Your task to perform on an android device: Go to settings Image 0: 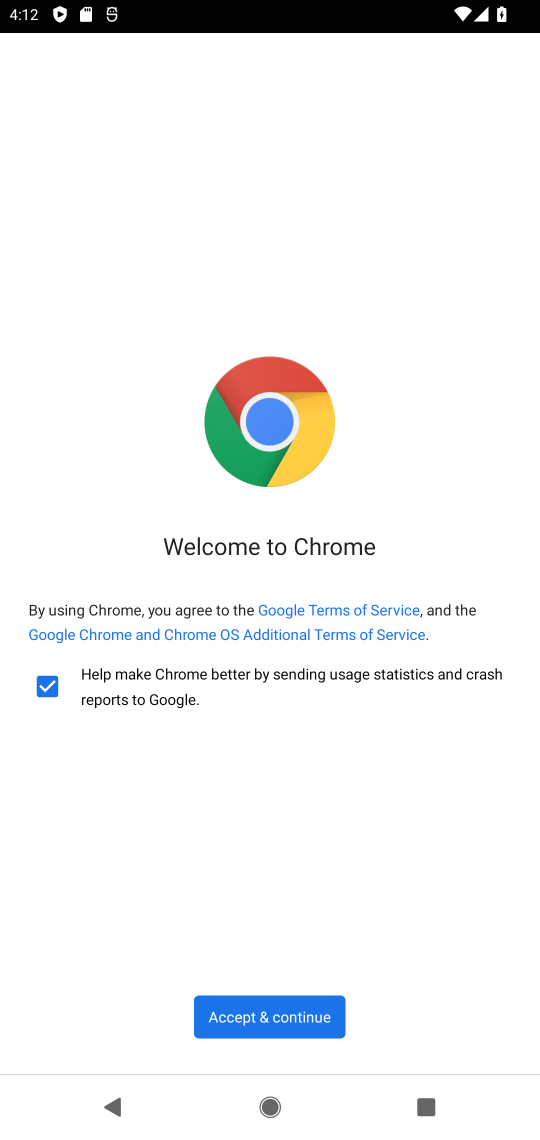
Step 0: press home button
Your task to perform on an android device: Go to settings Image 1: 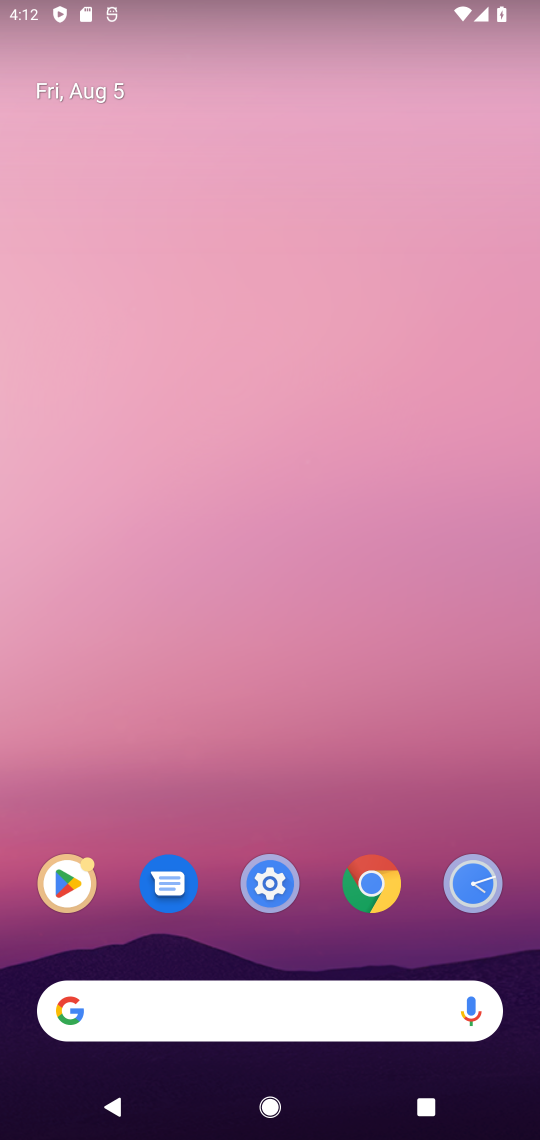
Step 1: click (266, 875)
Your task to perform on an android device: Go to settings Image 2: 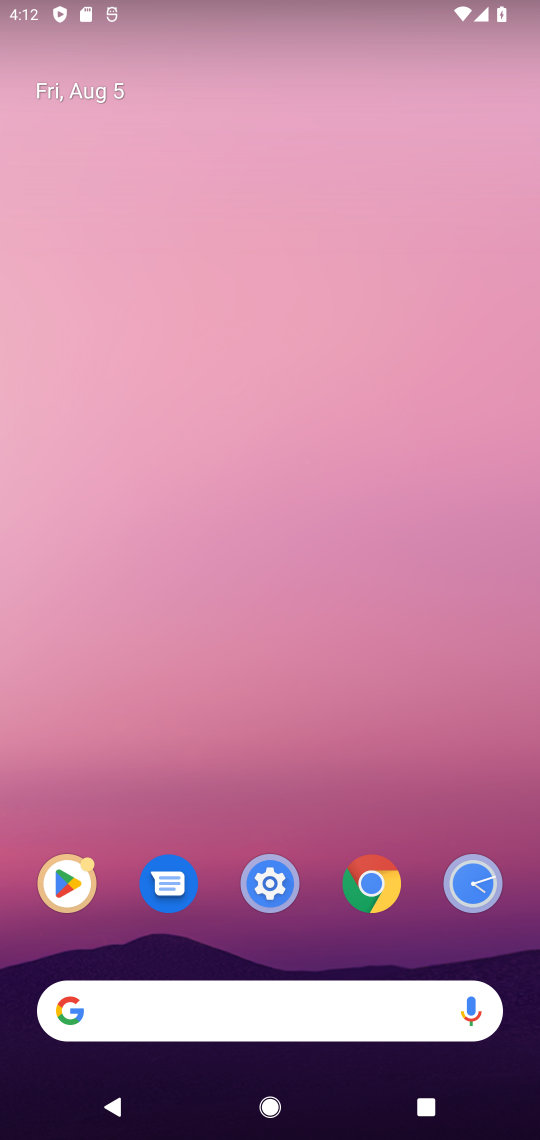
Step 2: click (275, 892)
Your task to perform on an android device: Go to settings Image 3: 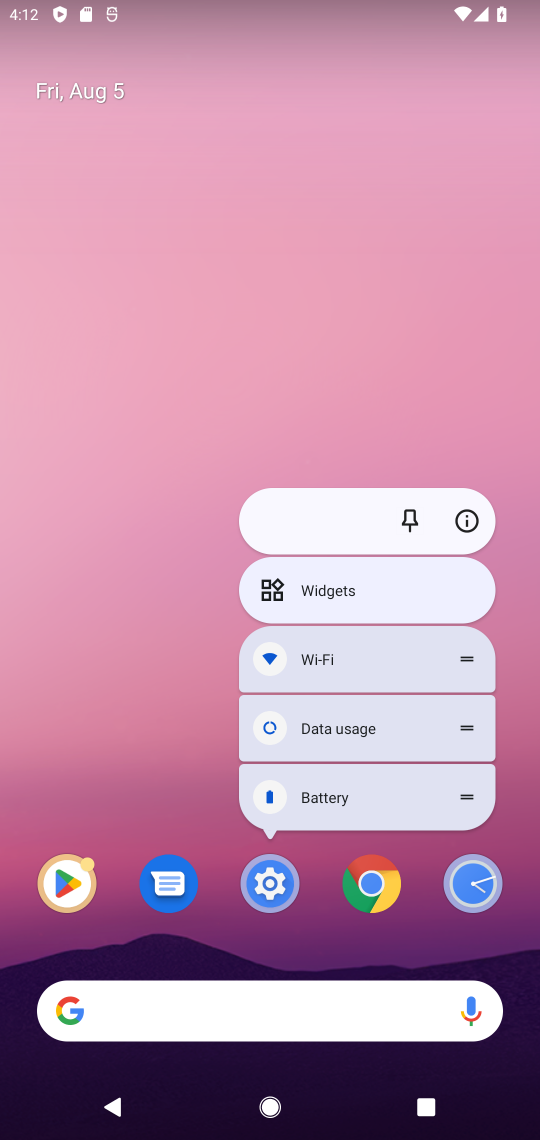
Step 3: click (275, 892)
Your task to perform on an android device: Go to settings Image 4: 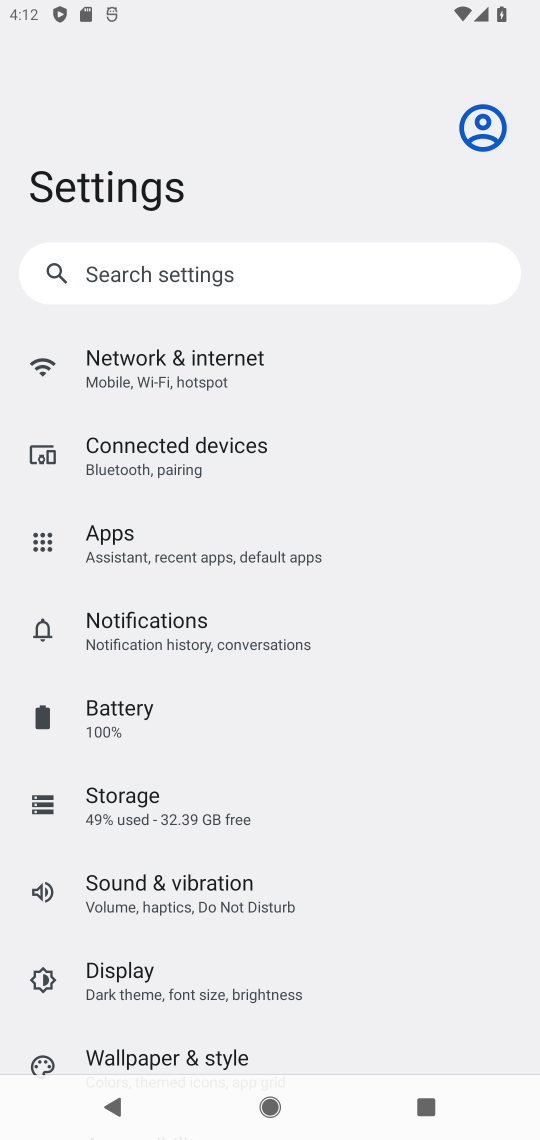
Step 4: task complete